Your task to perform on an android device: Open battery settings Image 0: 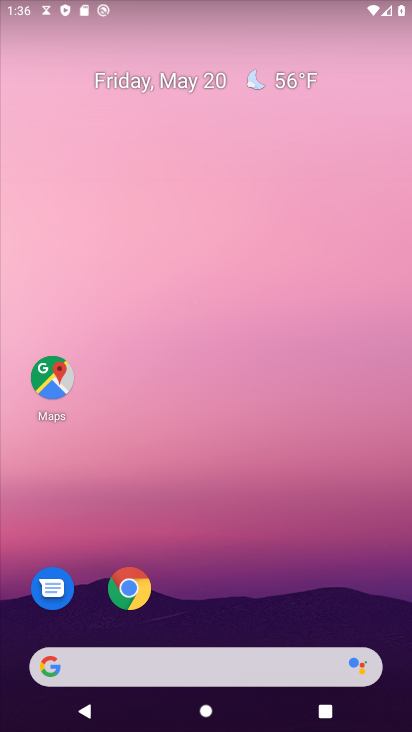
Step 0: drag from (357, 713) to (258, 105)
Your task to perform on an android device: Open battery settings Image 1: 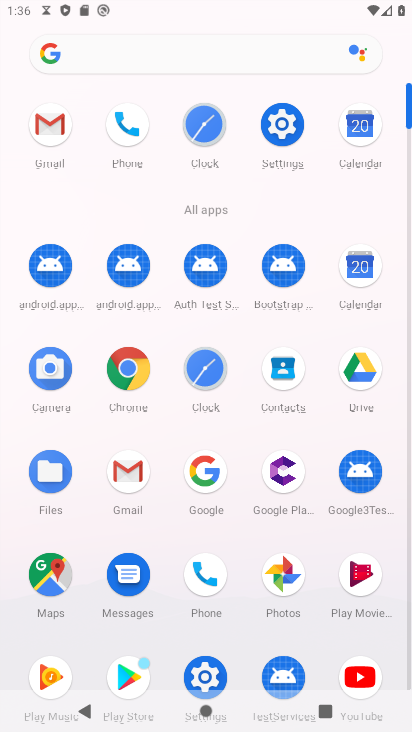
Step 1: click (288, 129)
Your task to perform on an android device: Open battery settings Image 2: 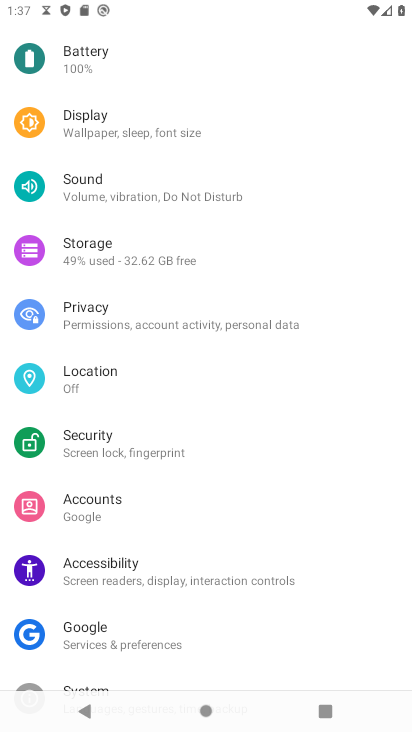
Step 2: click (85, 62)
Your task to perform on an android device: Open battery settings Image 3: 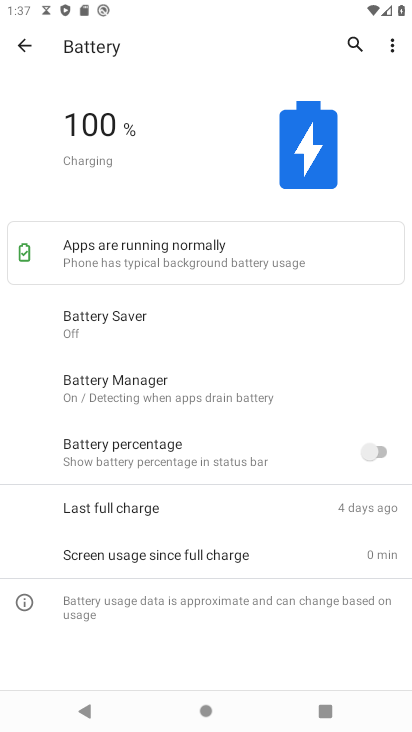
Step 3: task complete